Your task to perform on an android device: toggle javascript in the chrome app Image 0: 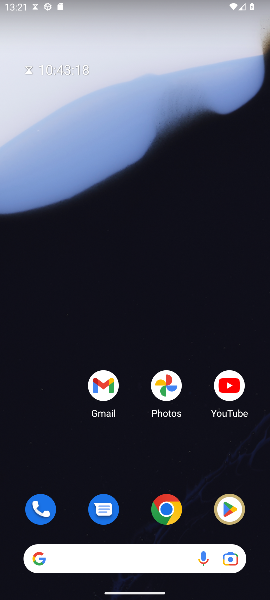
Step 0: click (162, 510)
Your task to perform on an android device: toggle javascript in the chrome app Image 1: 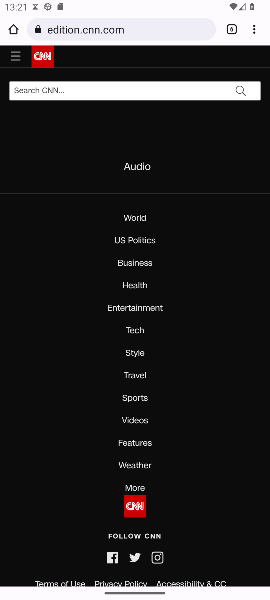
Step 1: drag from (253, 29) to (170, 370)
Your task to perform on an android device: toggle javascript in the chrome app Image 2: 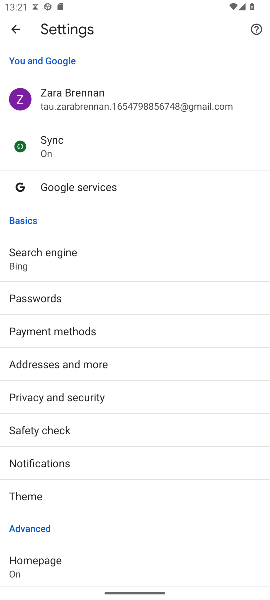
Step 2: drag from (108, 493) to (137, 155)
Your task to perform on an android device: toggle javascript in the chrome app Image 3: 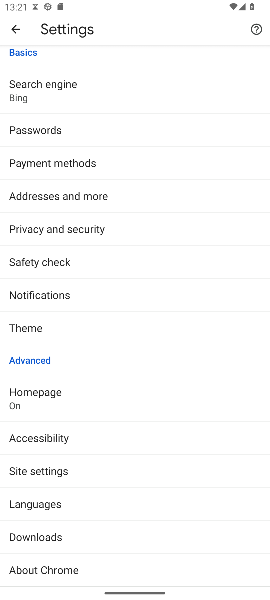
Step 3: click (33, 469)
Your task to perform on an android device: toggle javascript in the chrome app Image 4: 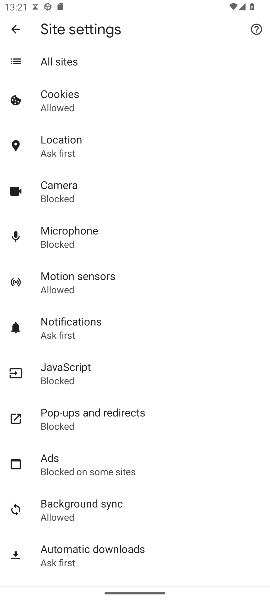
Step 4: click (62, 371)
Your task to perform on an android device: toggle javascript in the chrome app Image 5: 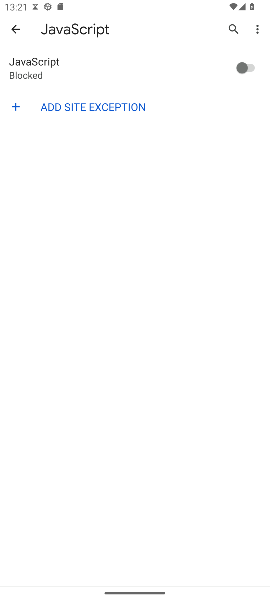
Step 5: click (240, 62)
Your task to perform on an android device: toggle javascript in the chrome app Image 6: 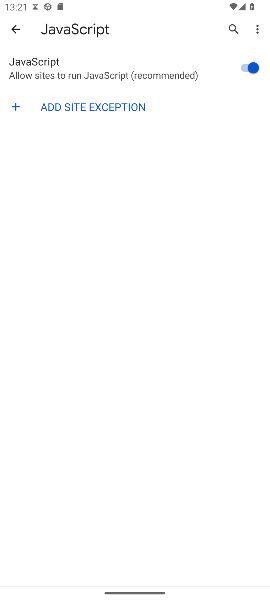
Step 6: task complete